Your task to perform on an android device: Open wifi settings Image 0: 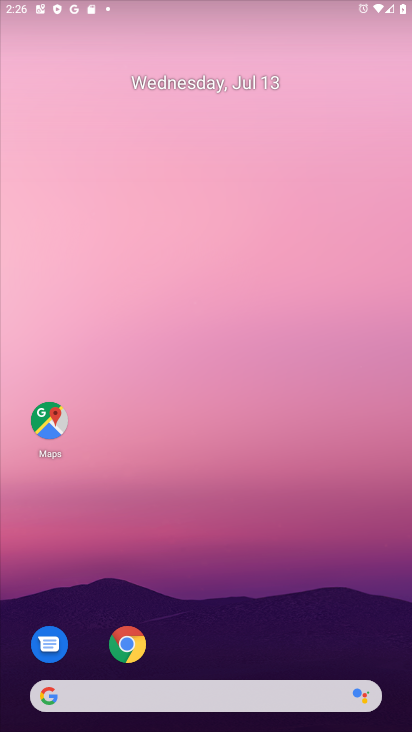
Step 0: task complete